Your task to perform on an android device: open app "Adobe Acrobat Reader: Edit PDF" Image 0: 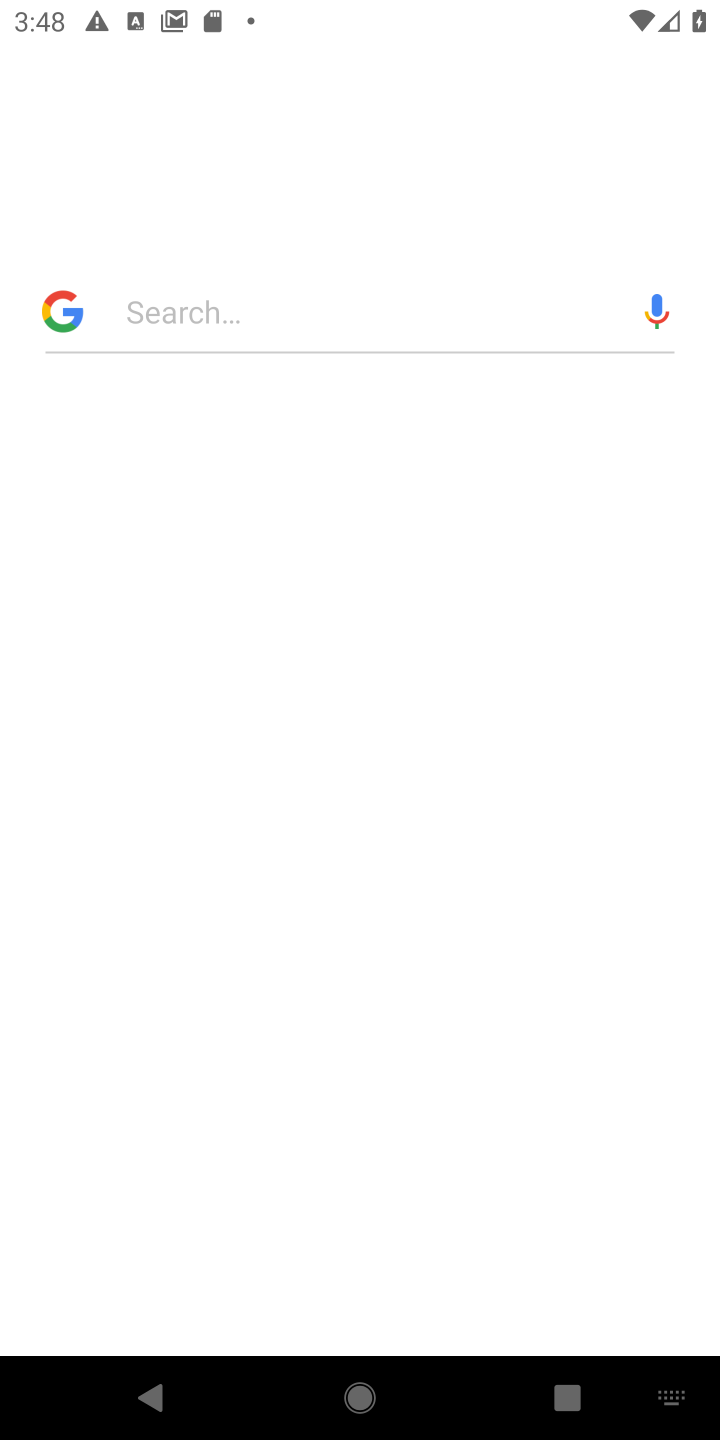
Step 0: press home button
Your task to perform on an android device: open app "Adobe Acrobat Reader: Edit PDF" Image 1: 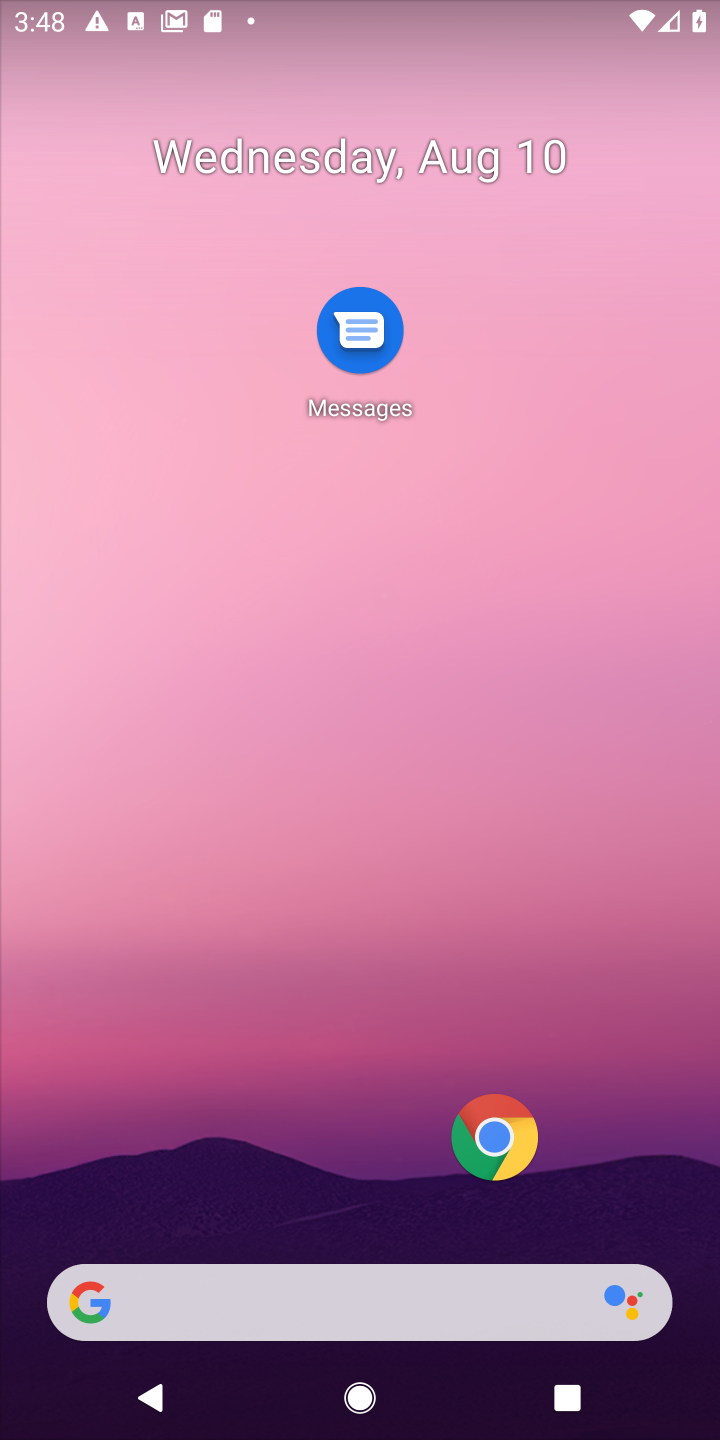
Step 1: drag from (320, 1233) to (255, 34)
Your task to perform on an android device: open app "Adobe Acrobat Reader: Edit PDF" Image 2: 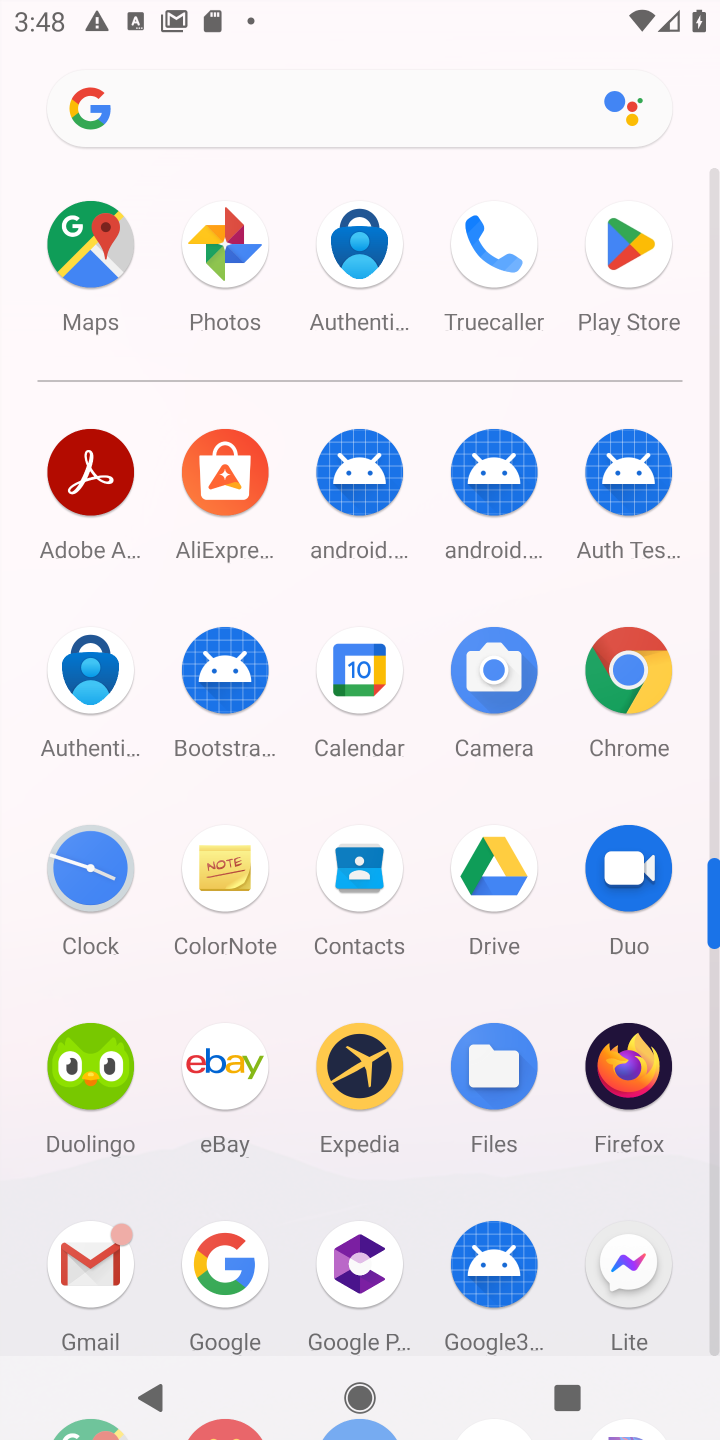
Step 2: click (636, 265)
Your task to perform on an android device: open app "Adobe Acrobat Reader: Edit PDF" Image 3: 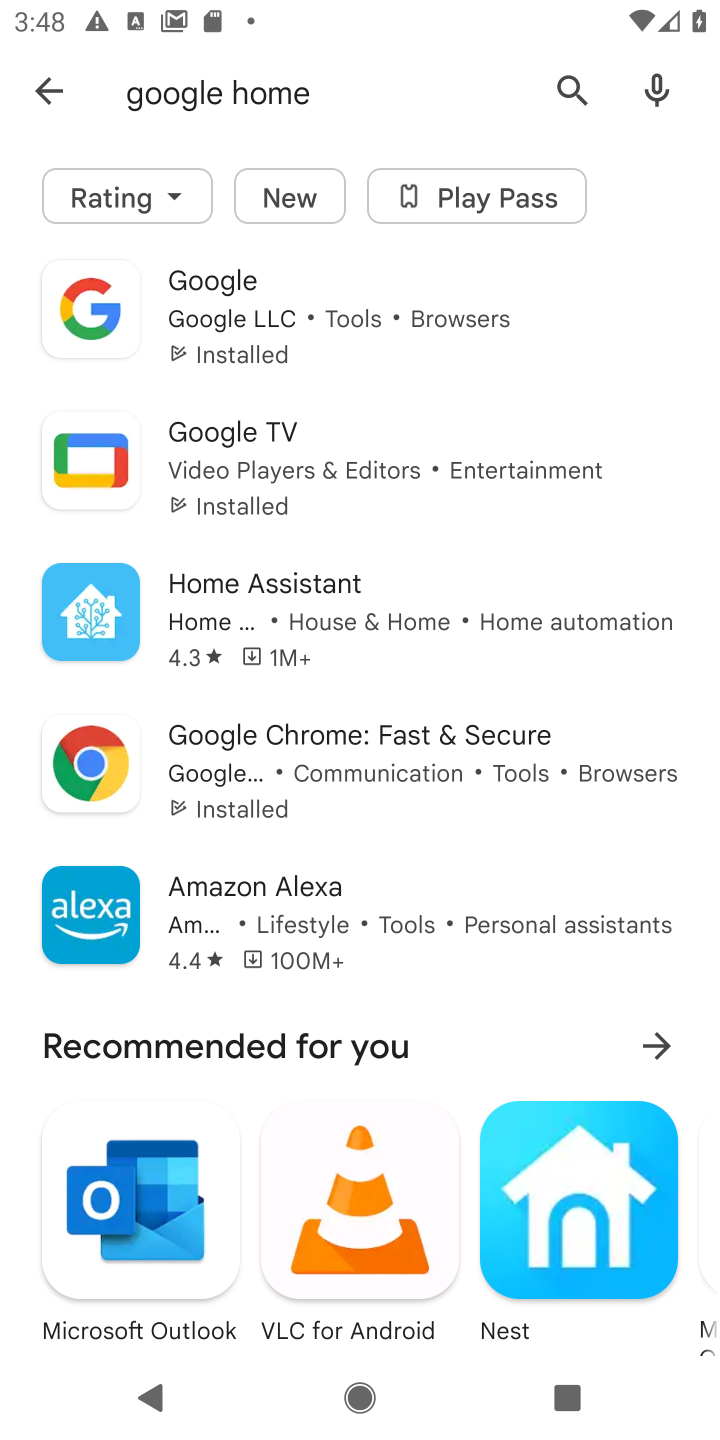
Step 3: click (294, 92)
Your task to perform on an android device: open app "Adobe Acrobat Reader: Edit PDF" Image 4: 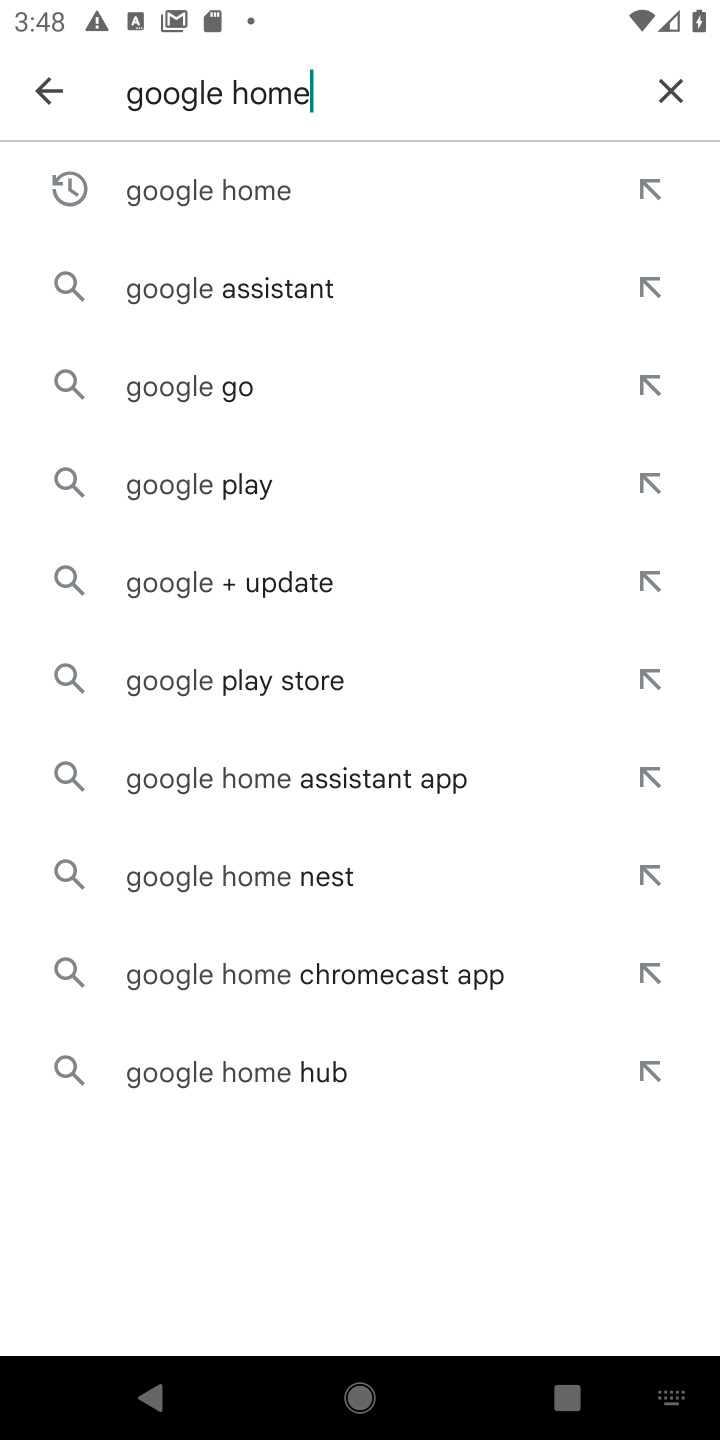
Step 4: click (675, 82)
Your task to perform on an android device: open app "Adobe Acrobat Reader: Edit PDF" Image 5: 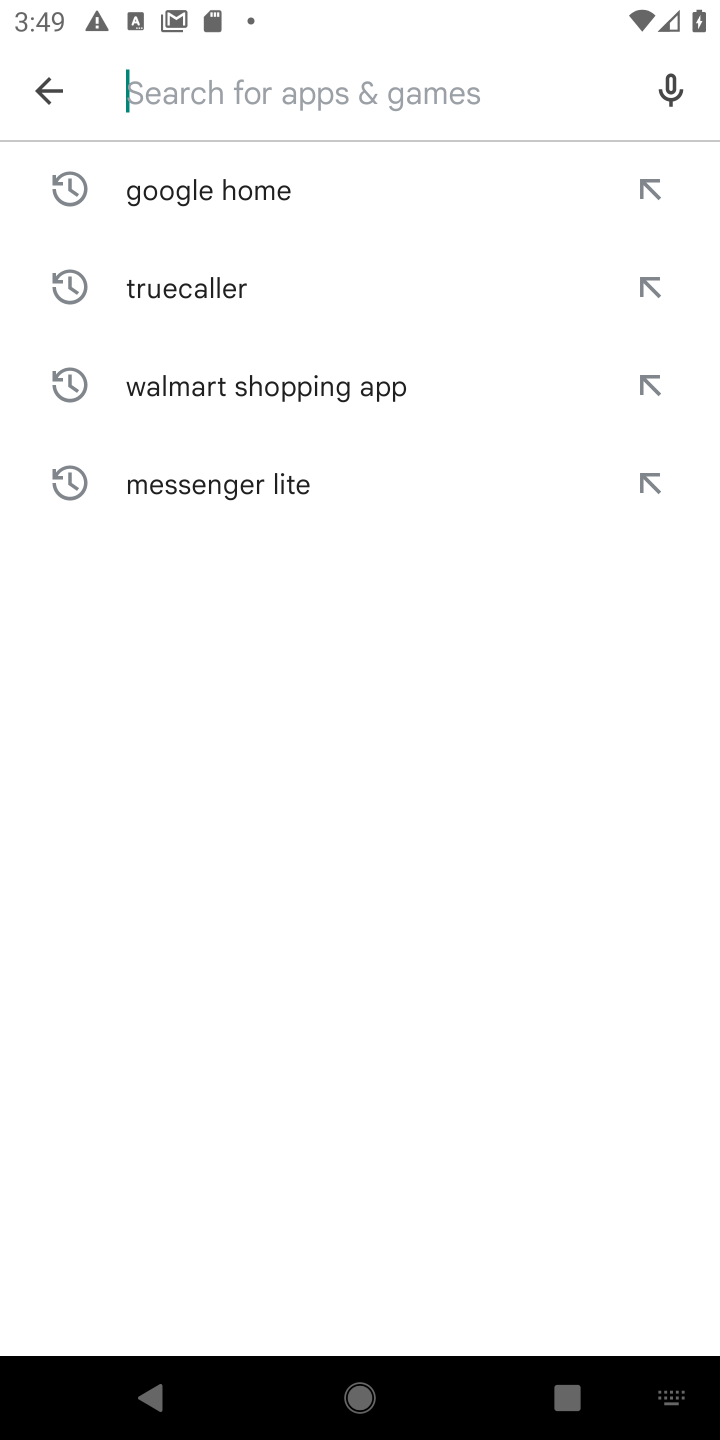
Step 5: type "Adobe acrobat reader"
Your task to perform on an android device: open app "Adobe Acrobat Reader: Edit PDF" Image 6: 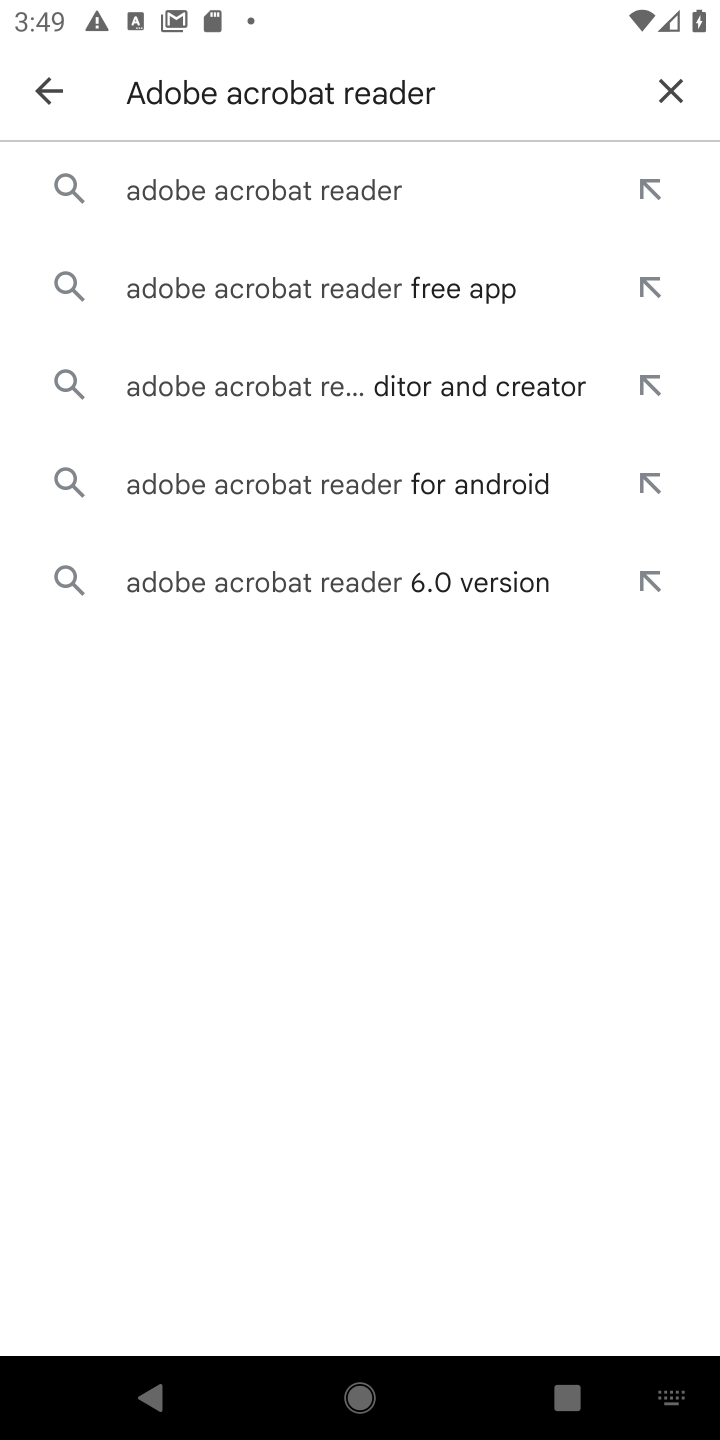
Step 6: click (319, 181)
Your task to perform on an android device: open app "Adobe Acrobat Reader: Edit PDF" Image 7: 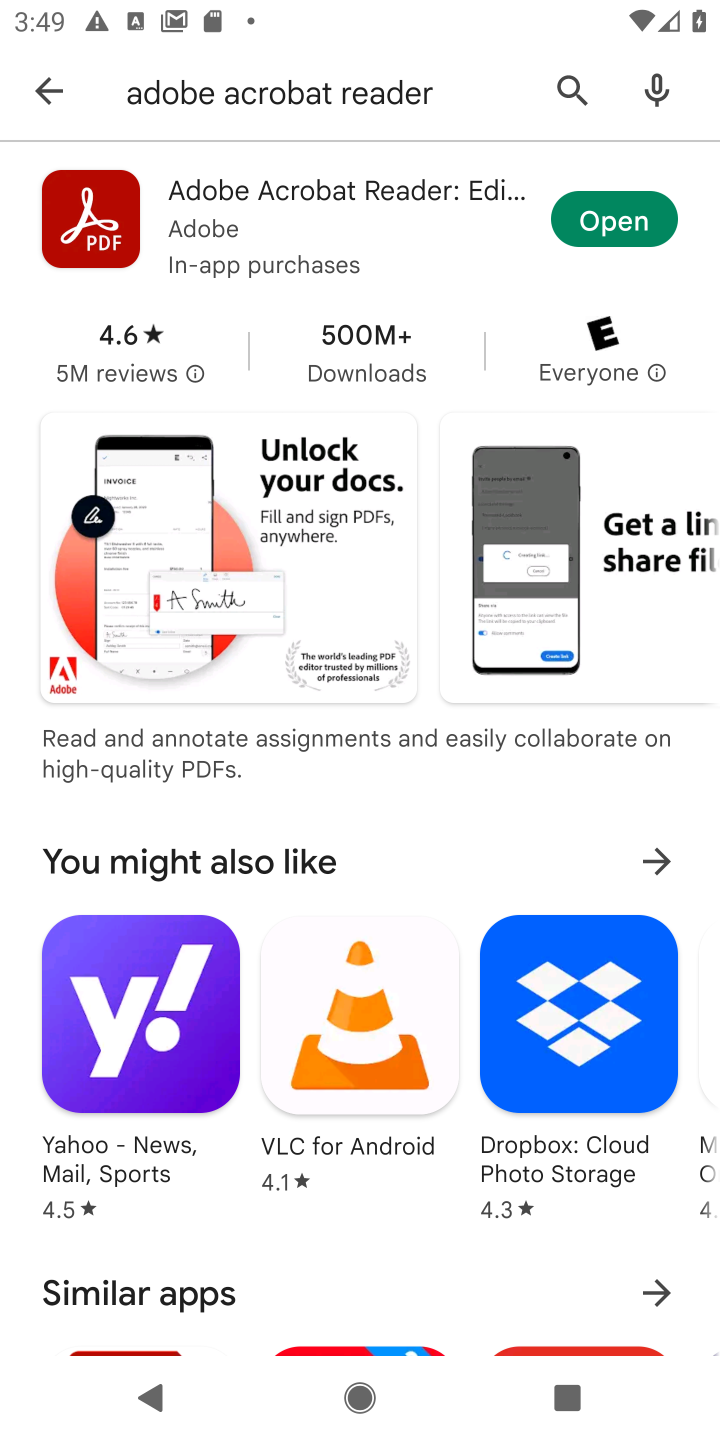
Step 7: click (610, 216)
Your task to perform on an android device: open app "Adobe Acrobat Reader: Edit PDF" Image 8: 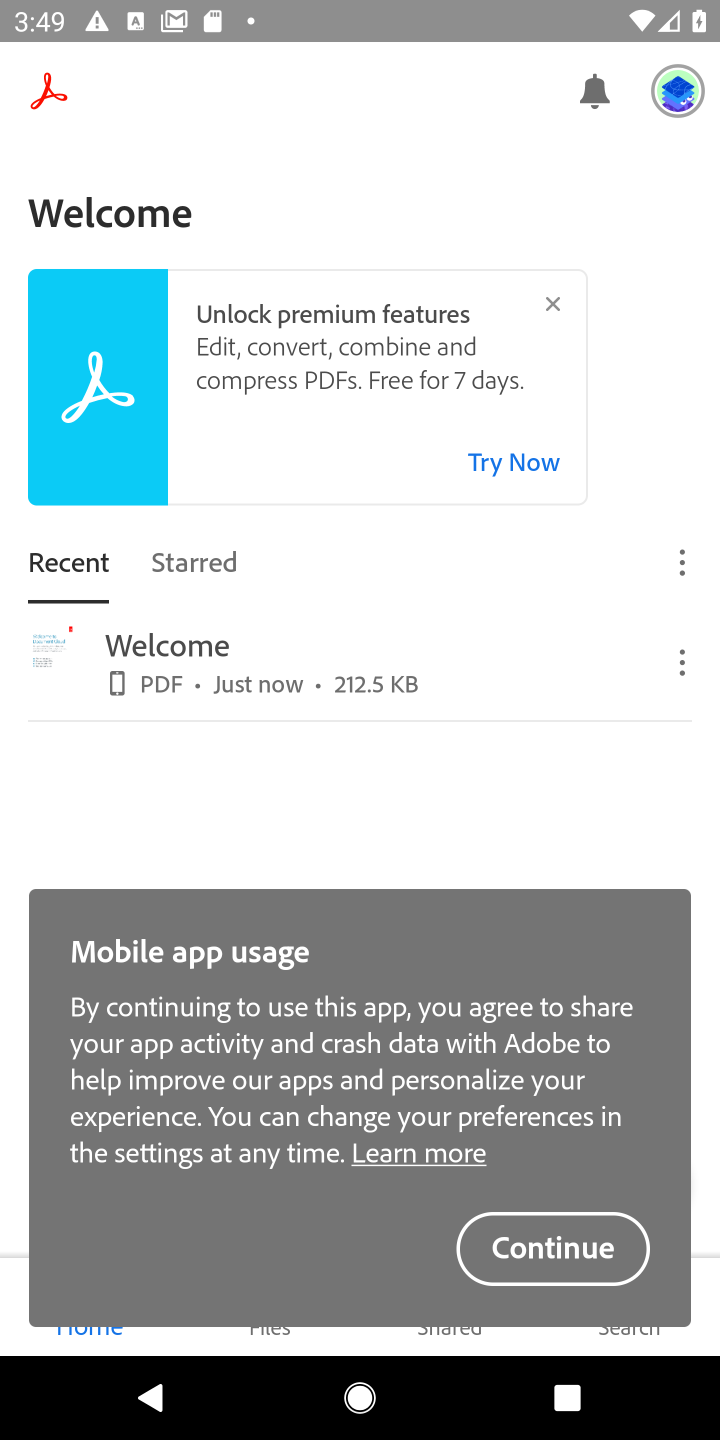
Step 8: drag from (402, 645) to (432, 509)
Your task to perform on an android device: open app "Adobe Acrobat Reader: Edit PDF" Image 9: 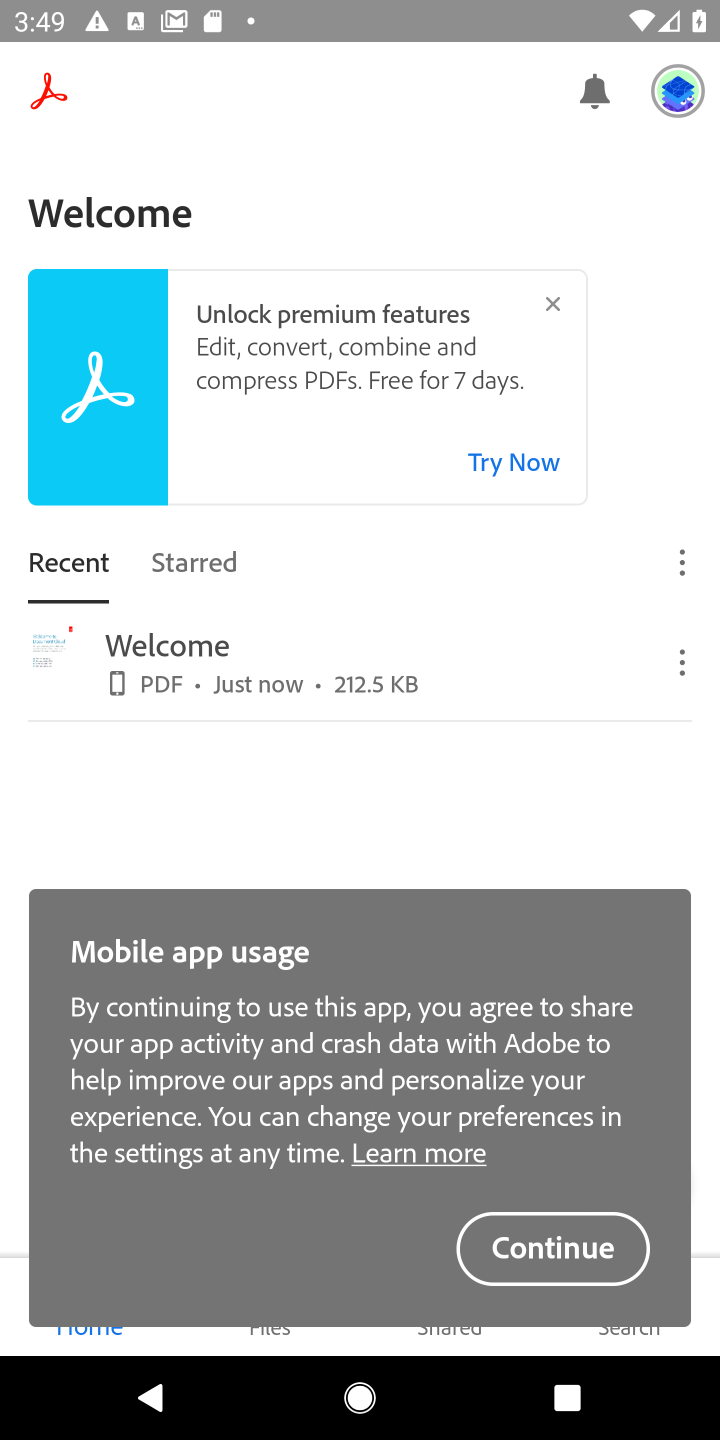
Step 9: click (550, 295)
Your task to perform on an android device: open app "Adobe Acrobat Reader: Edit PDF" Image 10: 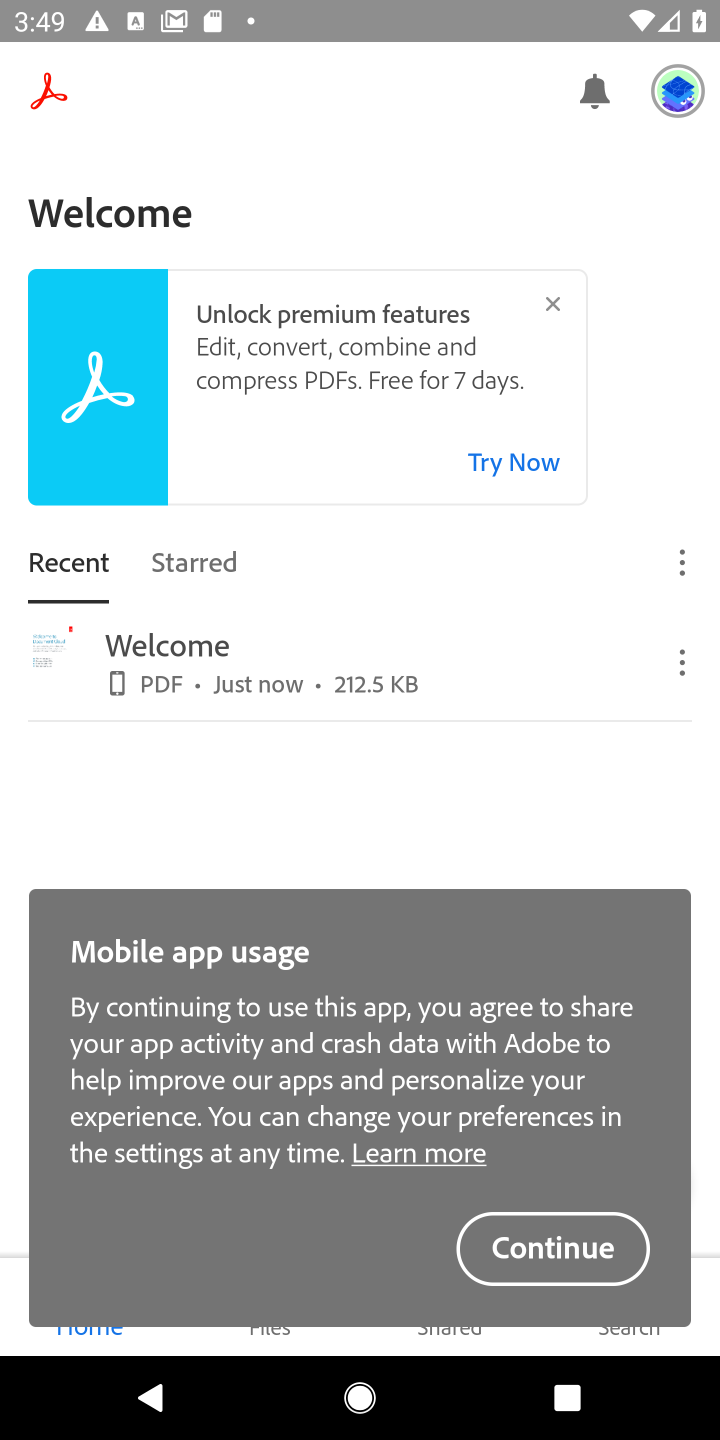
Step 10: click (546, 300)
Your task to perform on an android device: open app "Adobe Acrobat Reader: Edit PDF" Image 11: 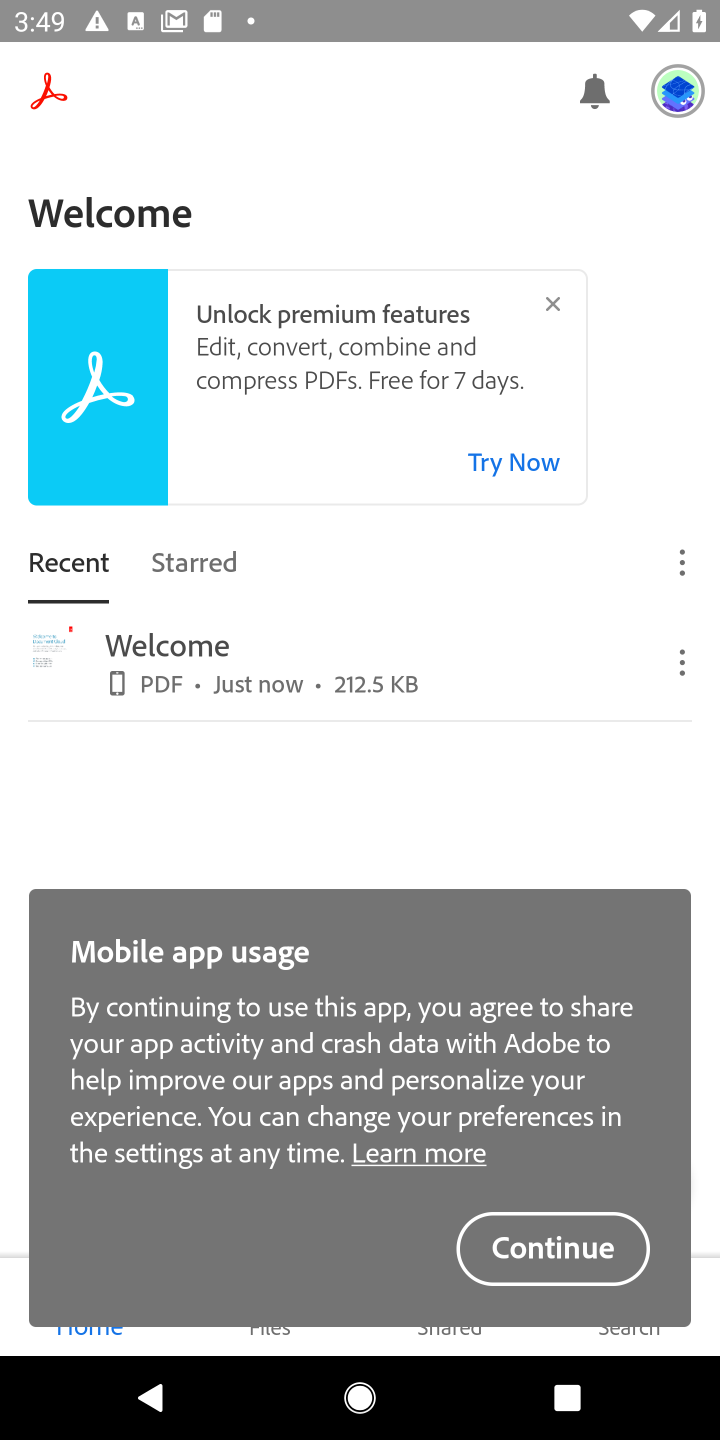
Step 11: click (545, 292)
Your task to perform on an android device: open app "Adobe Acrobat Reader: Edit PDF" Image 12: 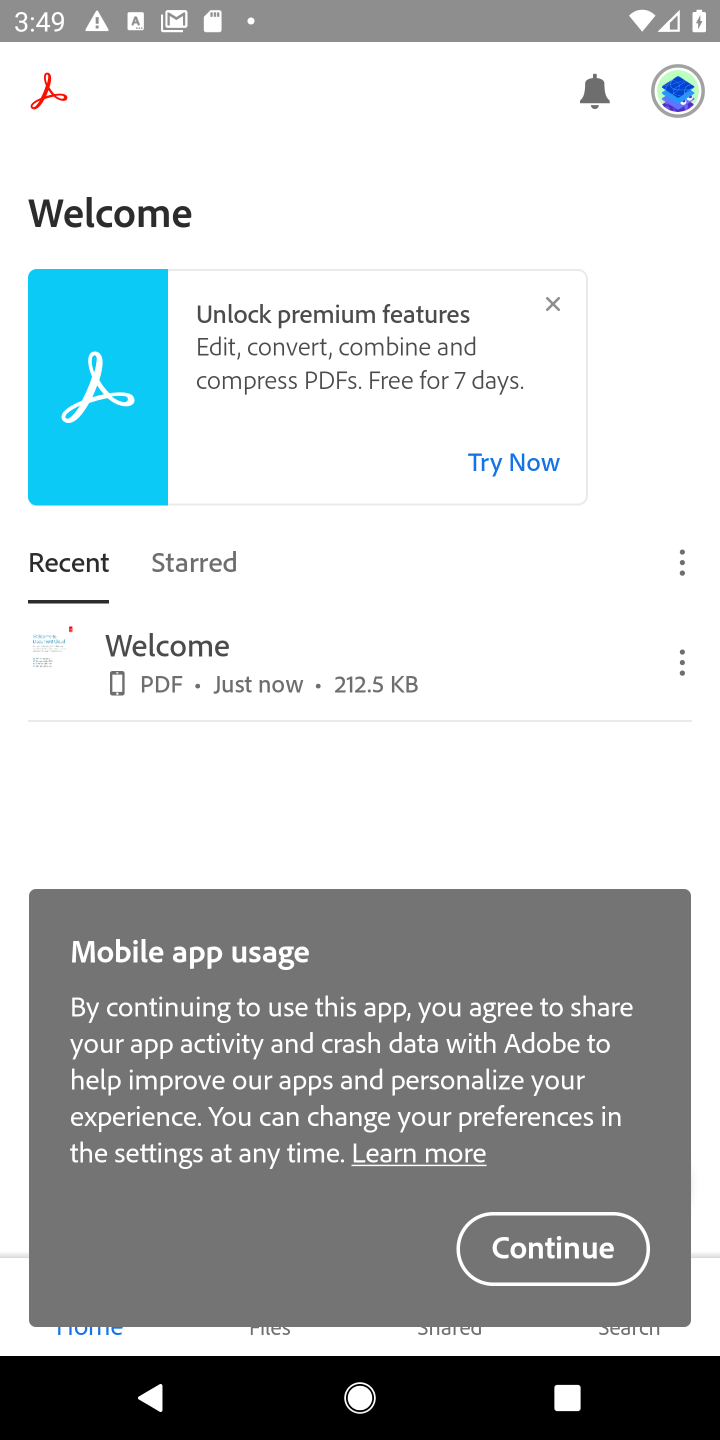
Step 12: click (537, 290)
Your task to perform on an android device: open app "Adobe Acrobat Reader: Edit PDF" Image 13: 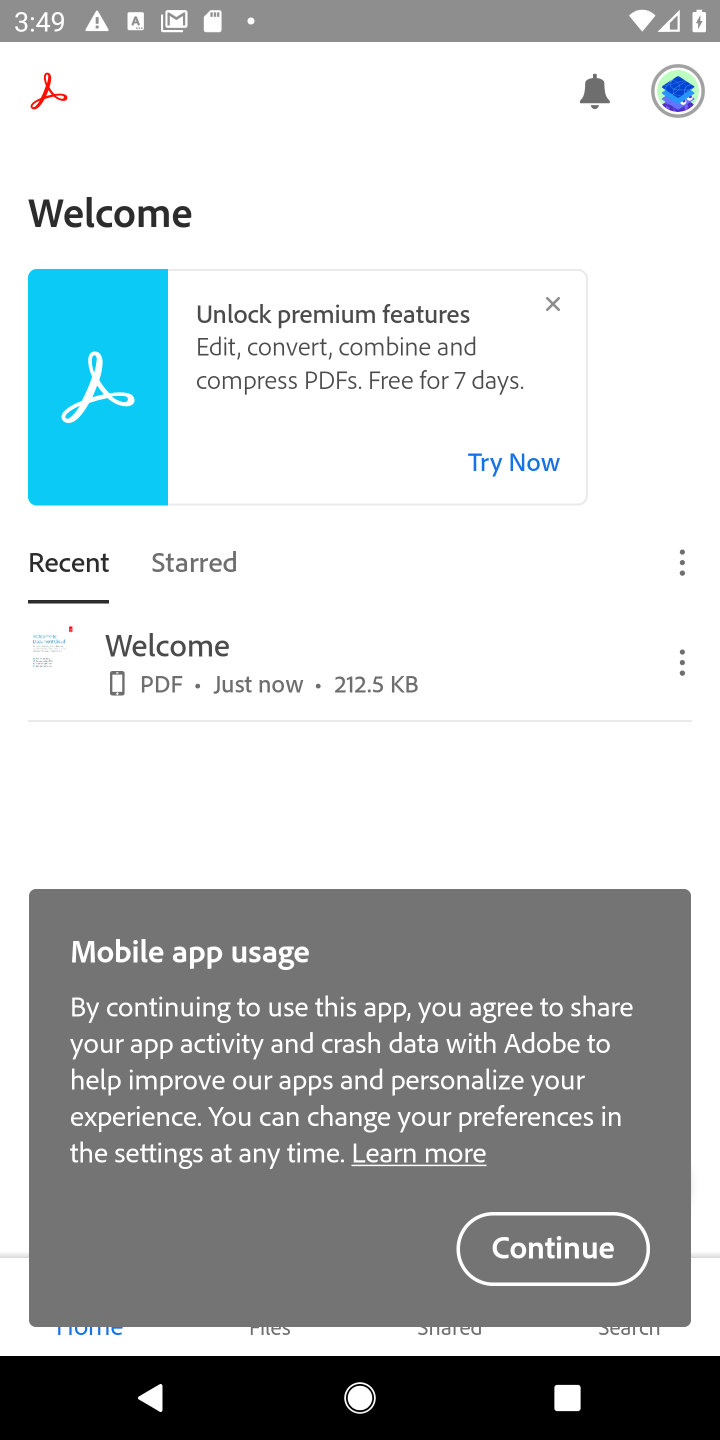
Step 13: click (556, 303)
Your task to perform on an android device: open app "Adobe Acrobat Reader: Edit PDF" Image 14: 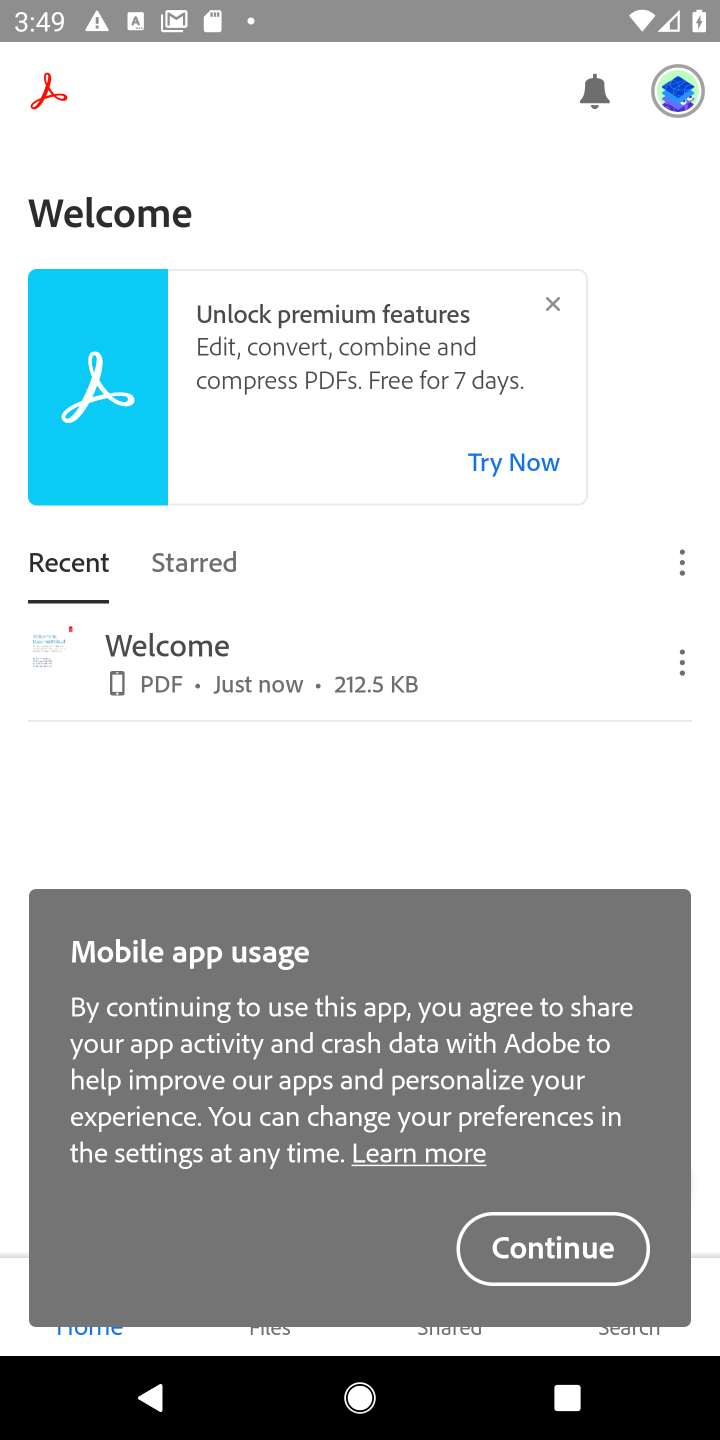
Step 14: click (558, 303)
Your task to perform on an android device: open app "Adobe Acrobat Reader: Edit PDF" Image 15: 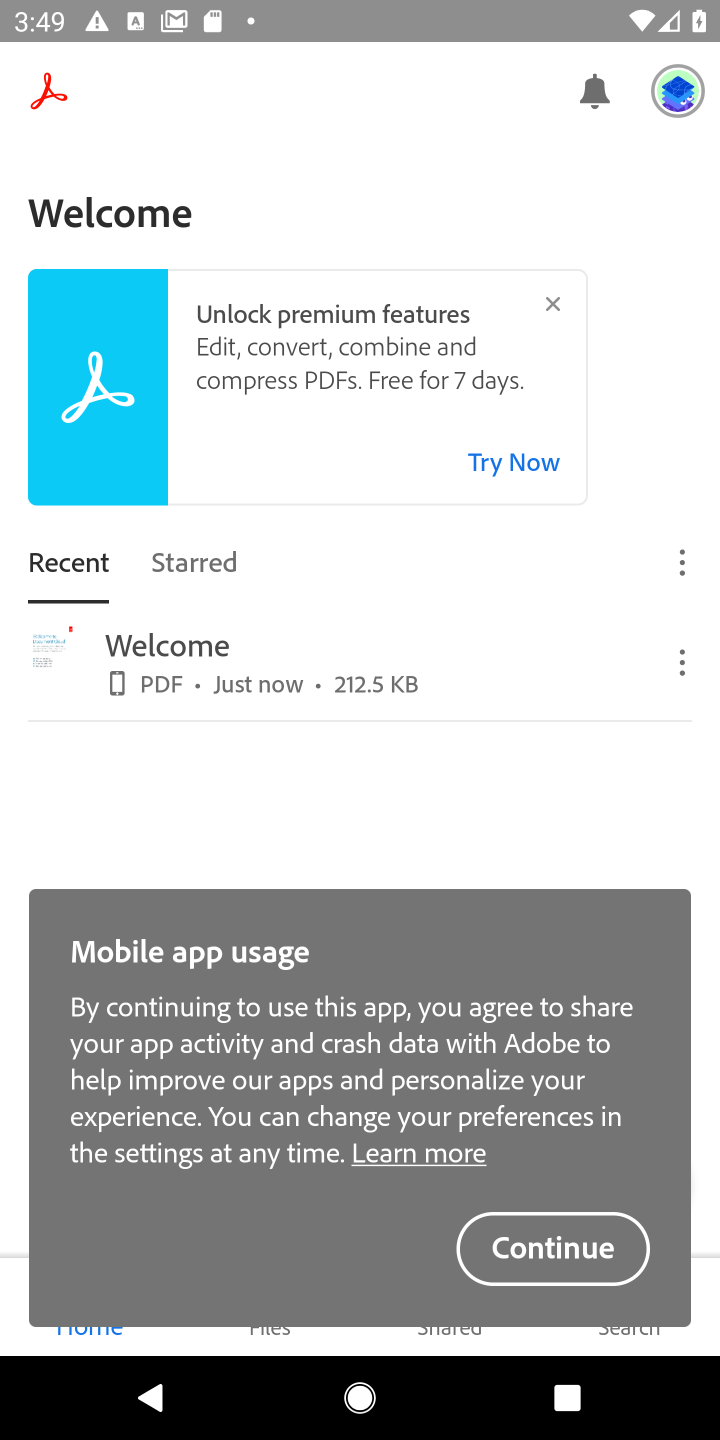
Step 15: task complete